Your task to perform on an android device: turn off notifications settings in the gmail app Image 0: 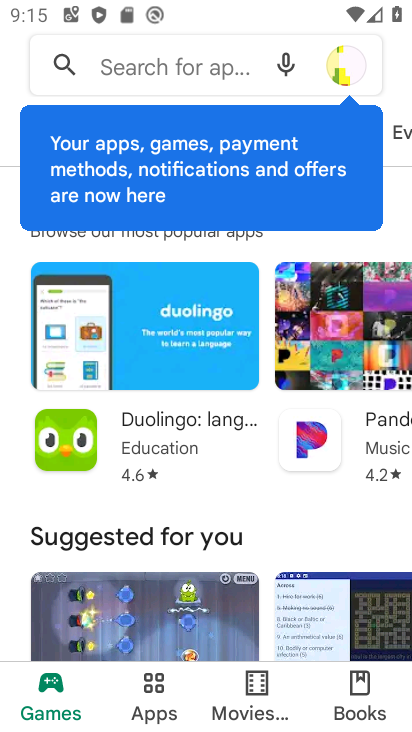
Step 0: press home button
Your task to perform on an android device: turn off notifications settings in the gmail app Image 1: 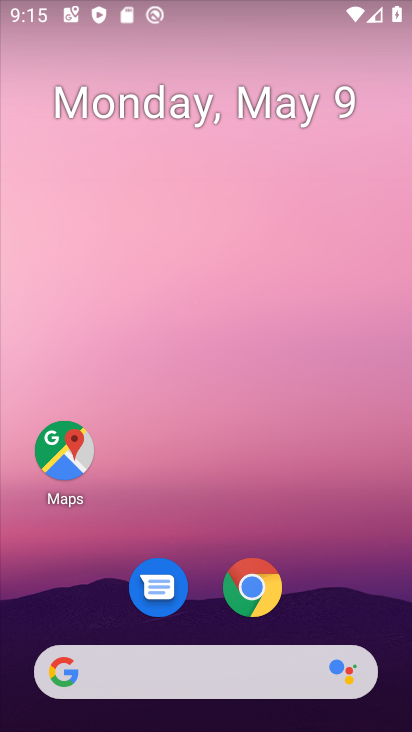
Step 1: drag from (210, 624) to (251, 39)
Your task to perform on an android device: turn off notifications settings in the gmail app Image 2: 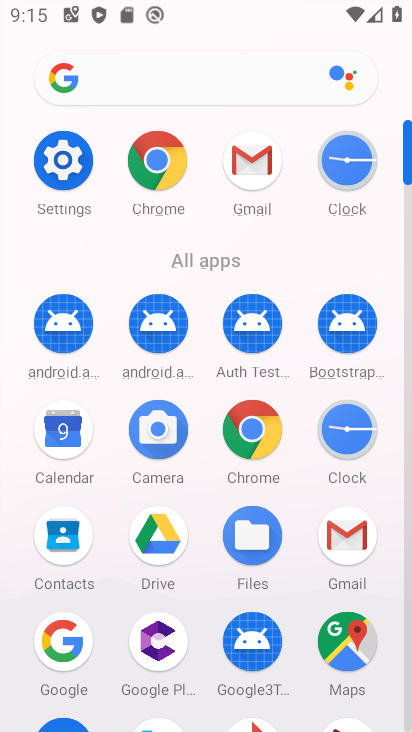
Step 2: click (268, 170)
Your task to perform on an android device: turn off notifications settings in the gmail app Image 3: 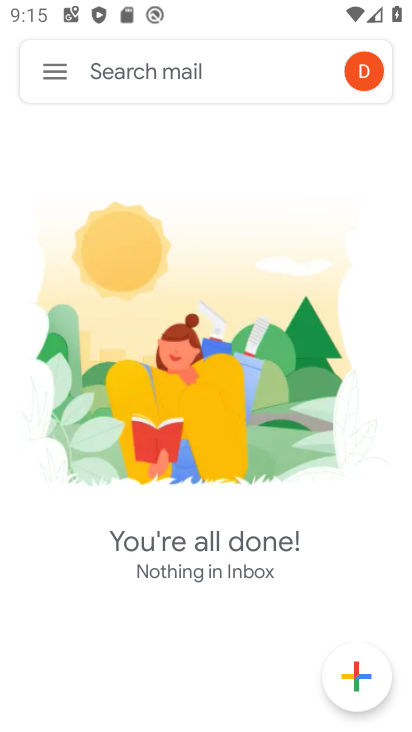
Step 3: click (64, 80)
Your task to perform on an android device: turn off notifications settings in the gmail app Image 4: 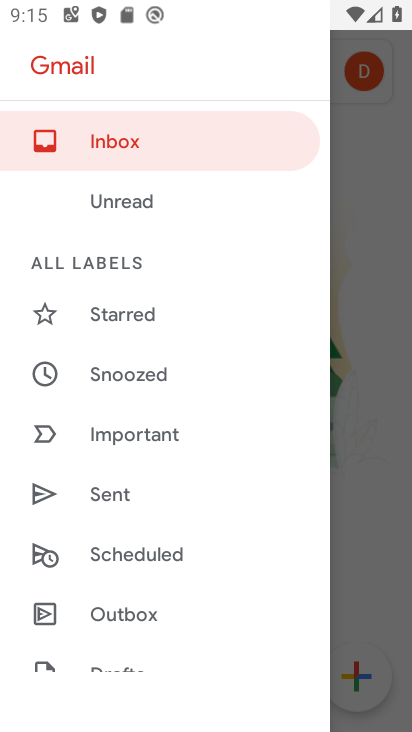
Step 4: drag from (152, 586) to (250, 35)
Your task to perform on an android device: turn off notifications settings in the gmail app Image 5: 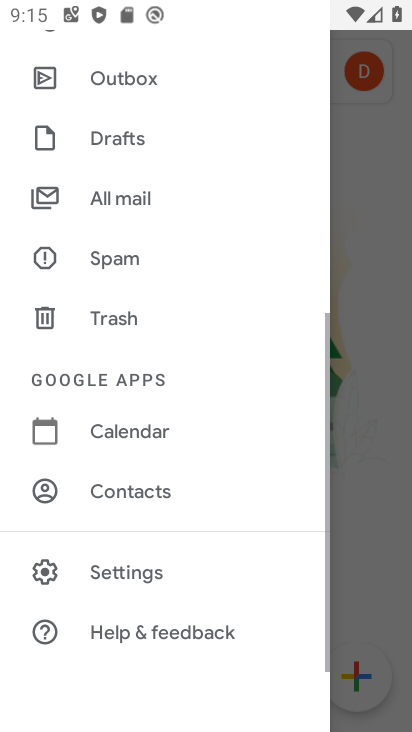
Step 5: click (135, 600)
Your task to perform on an android device: turn off notifications settings in the gmail app Image 6: 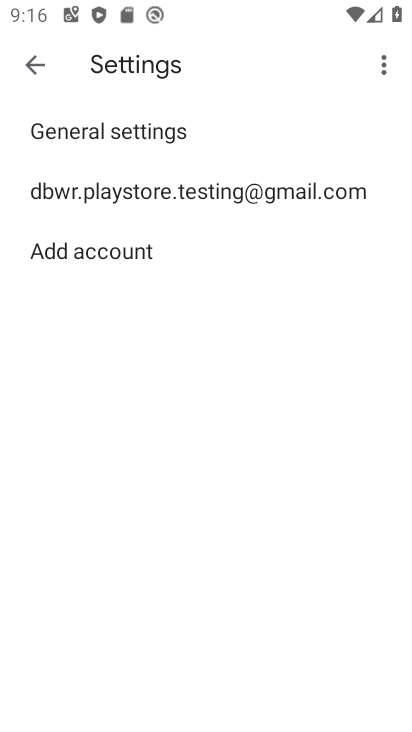
Step 6: click (233, 183)
Your task to perform on an android device: turn off notifications settings in the gmail app Image 7: 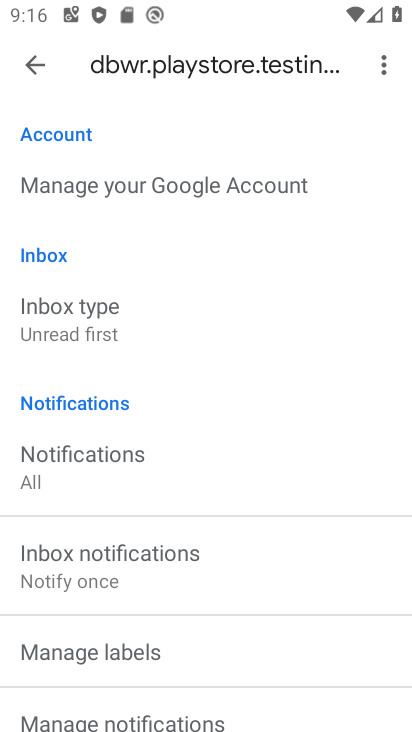
Step 7: click (156, 471)
Your task to perform on an android device: turn off notifications settings in the gmail app Image 8: 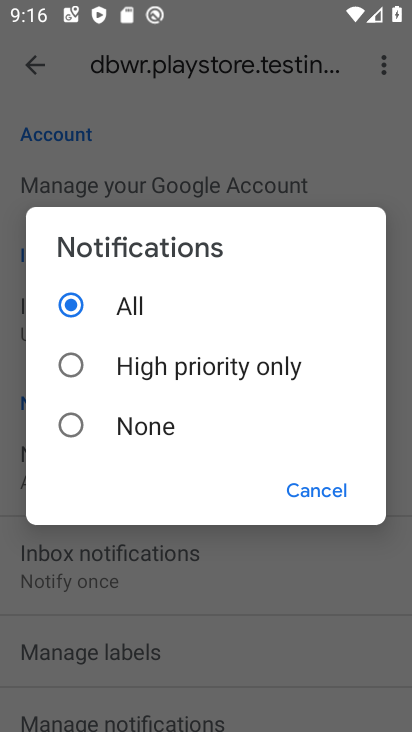
Step 8: click (95, 439)
Your task to perform on an android device: turn off notifications settings in the gmail app Image 9: 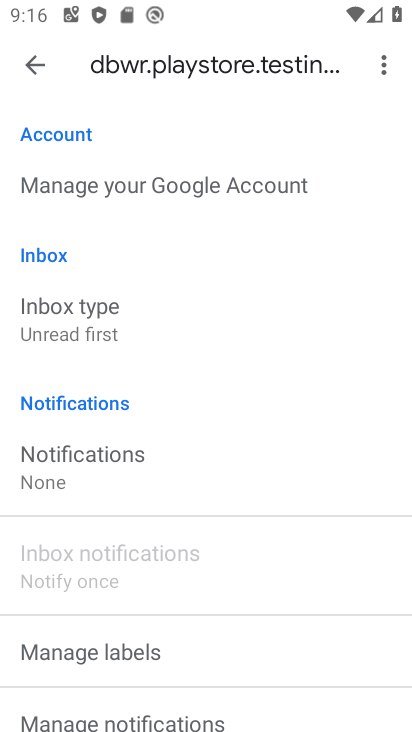
Step 9: task complete